Your task to perform on an android device: Add "bose quietcomfort 35" to the cart on bestbuy.com Image 0: 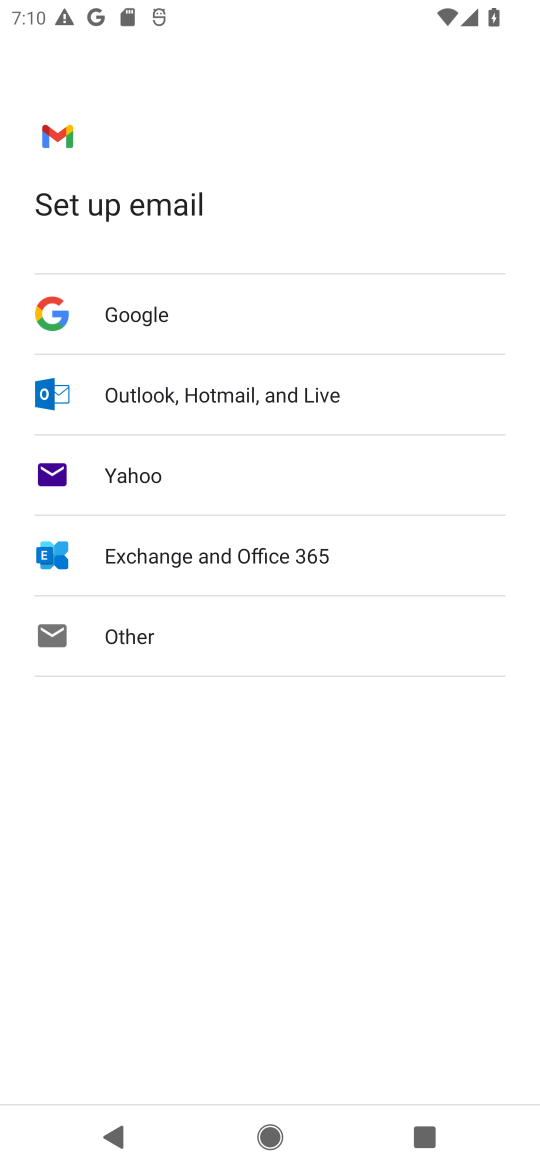
Step 0: press home button
Your task to perform on an android device: Add "bose quietcomfort 35" to the cart on bestbuy.com Image 1: 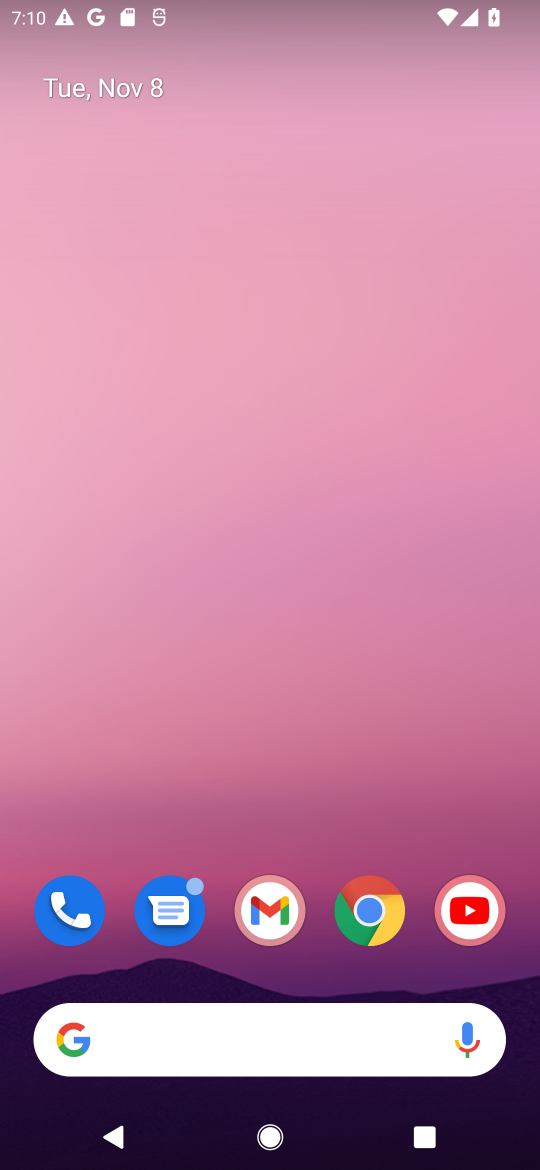
Step 1: click (358, 902)
Your task to perform on an android device: Add "bose quietcomfort 35" to the cart on bestbuy.com Image 2: 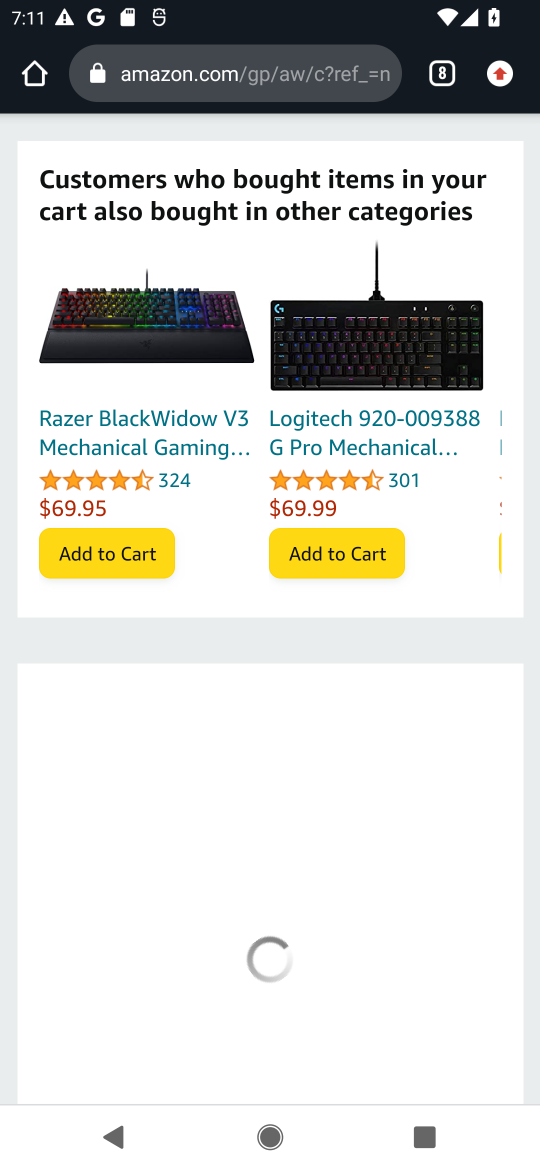
Step 2: click (432, 70)
Your task to perform on an android device: Add "bose quietcomfort 35" to the cart on bestbuy.com Image 3: 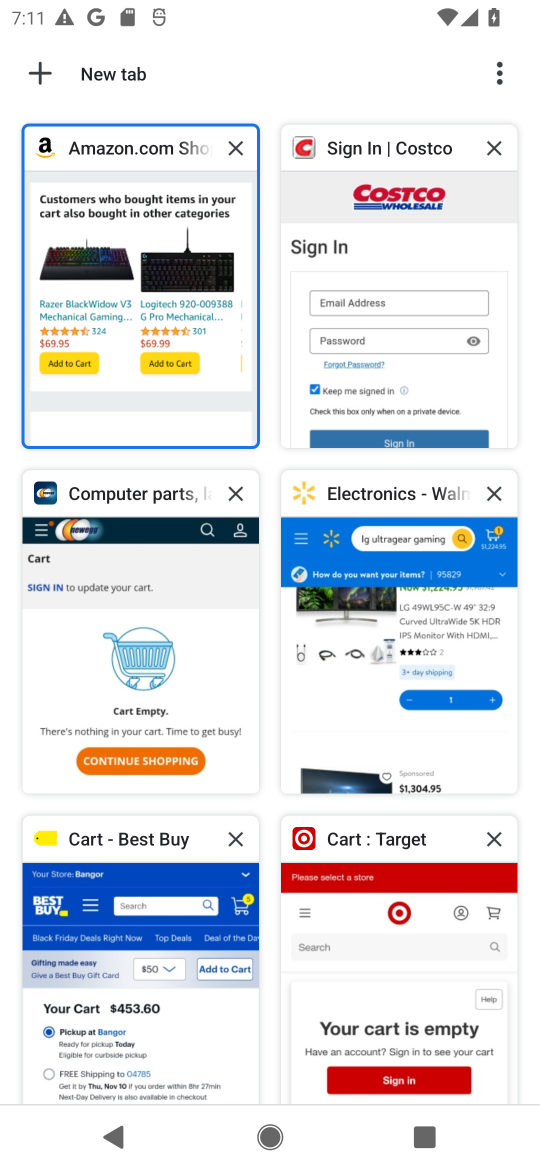
Step 3: click (136, 906)
Your task to perform on an android device: Add "bose quietcomfort 35" to the cart on bestbuy.com Image 4: 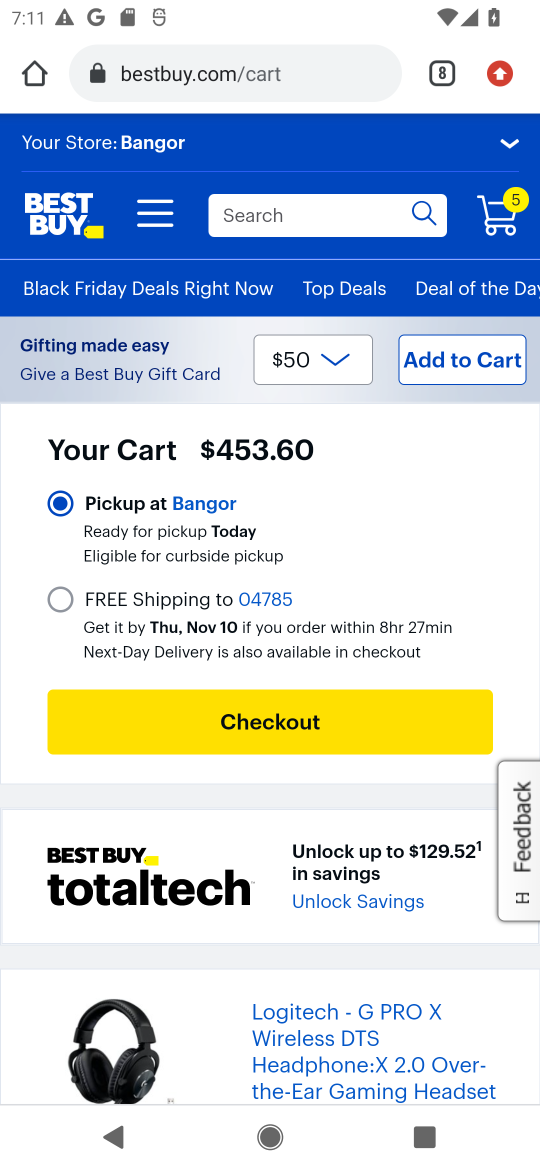
Step 4: click (288, 214)
Your task to perform on an android device: Add "bose quietcomfort 35" to the cart on bestbuy.com Image 5: 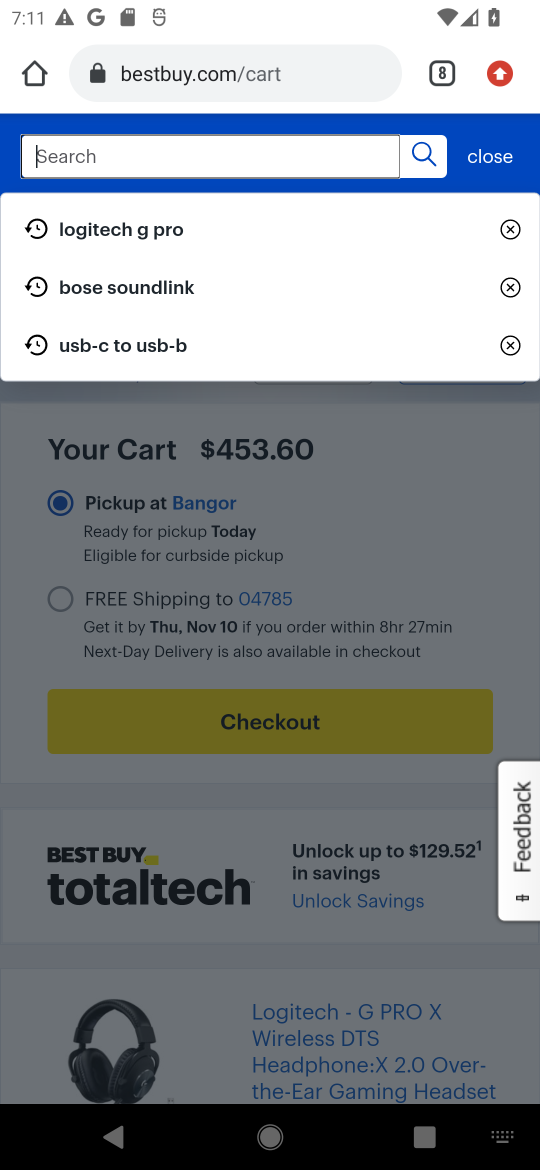
Step 5: type "bose quietcomfort 35"
Your task to perform on an android device: Add "bose quietcomfort 35" to the cart on bestbuy.com Image 6: 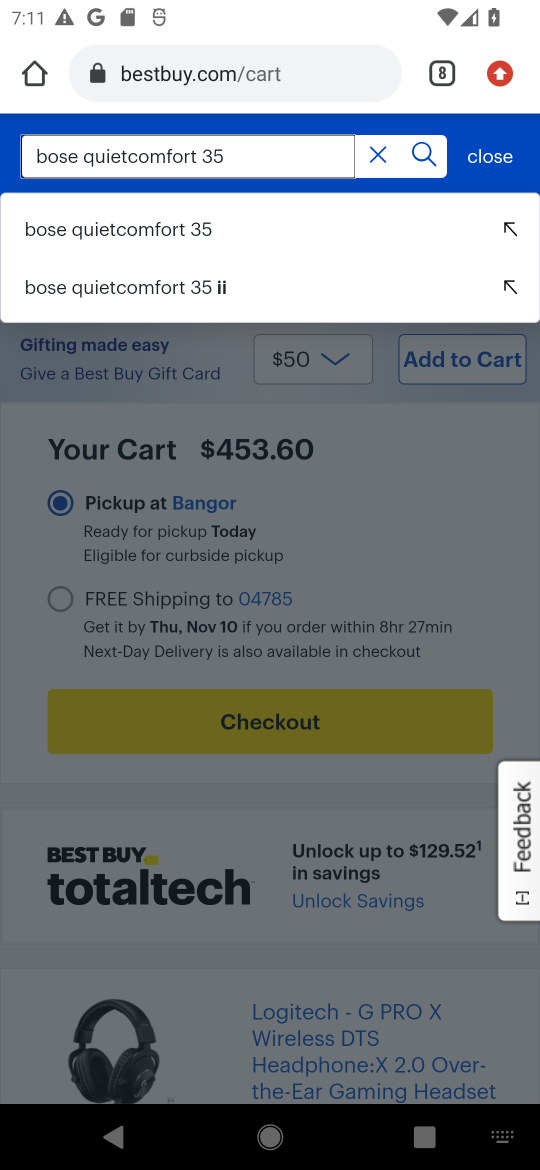
Step 6: click (196, 233)
Your task to perform on an android device: Add "bose quietcomfort 35" to the cart on bestbuy.com Image 7: 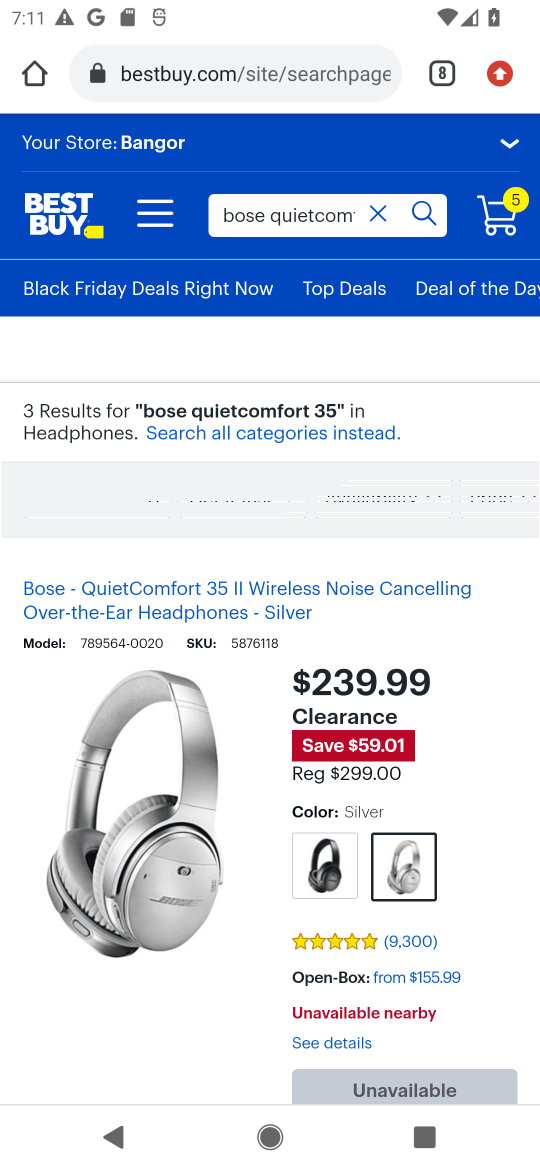
Step 7: drag from (209, 1020) to (380, 452)
Your task to perform on an android device: Add "bose quietcomfort 35" to the cart on bestbuy.com Image 8: 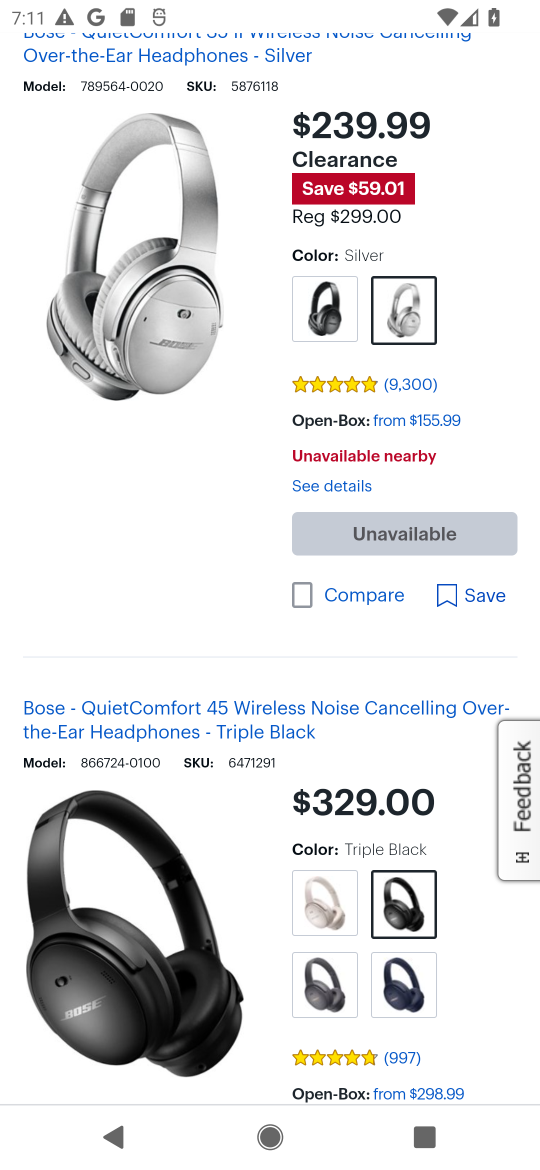
Step 8: drag from (192, 895) to (333, 271)
Your task to perform on an android device: Add "bose quietcomfort 35" to the cart on bestbuy.com Image 9: 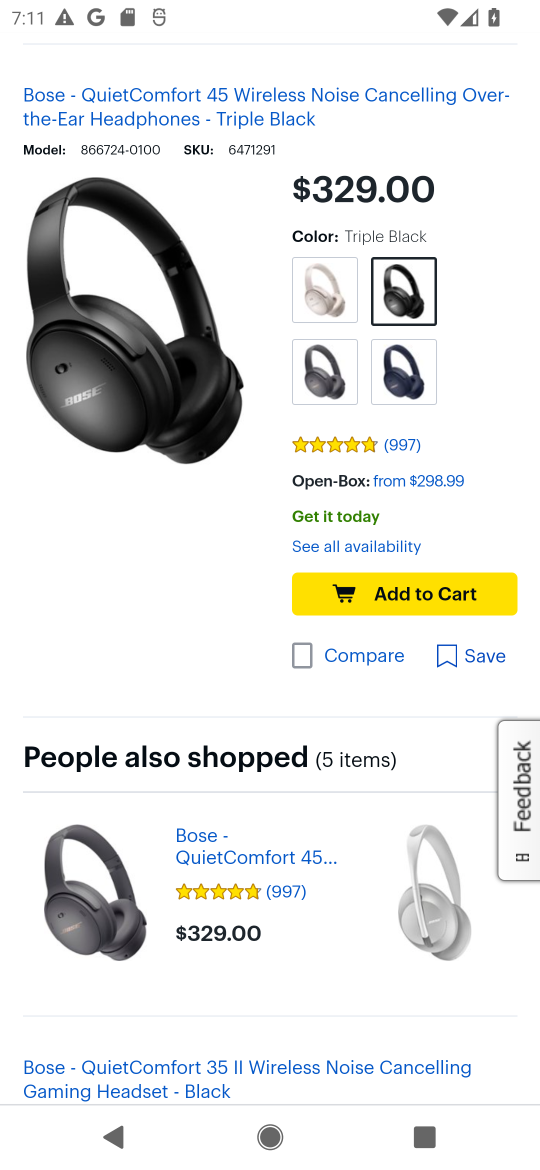
Step 9: click (396, 587)
Your task to perform on an android device: Add "bose quietcomfort 35" to the cart on bestbuy.com Image 10: 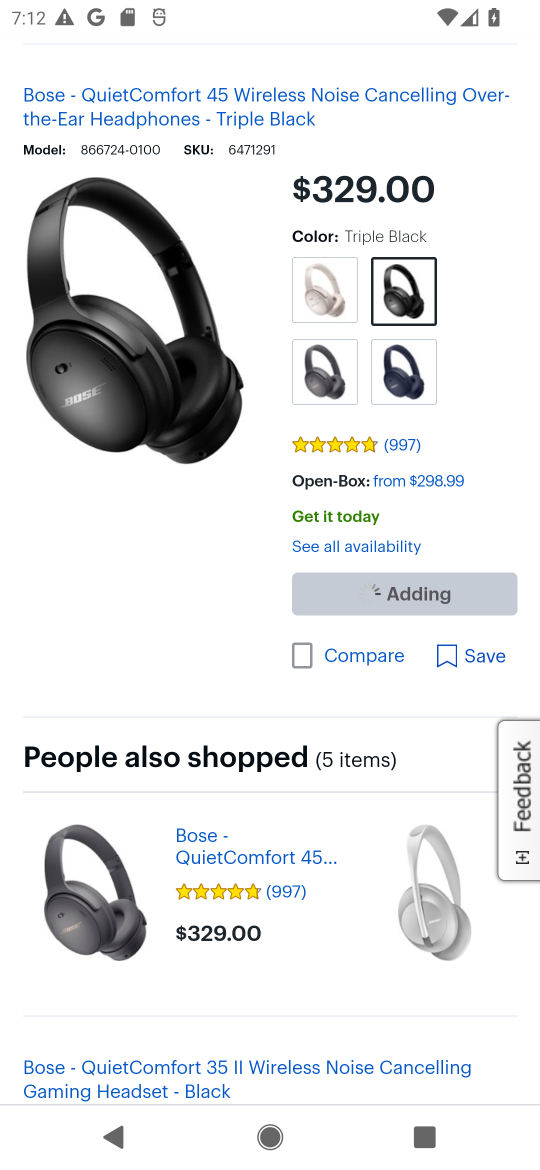
Step 10: task complete